Your task to perform on an android device: Do I have any events this weekend? Image 0: 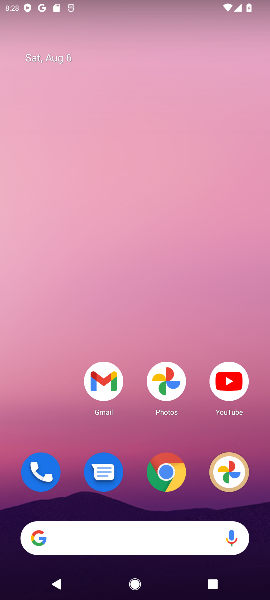
Step 0: click (229, 463)
Your task to perform on an android device: Do I have any events this weekend? Image 1: 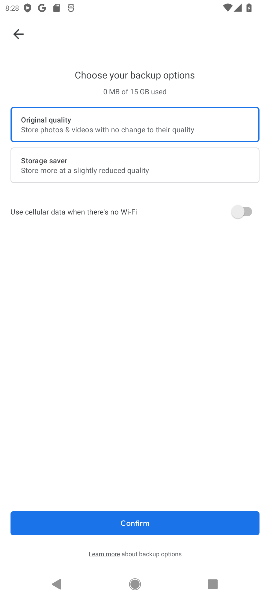
Step 1: press home button
Your task to perform on an android device: Do I have any events this weekend? Image 2: 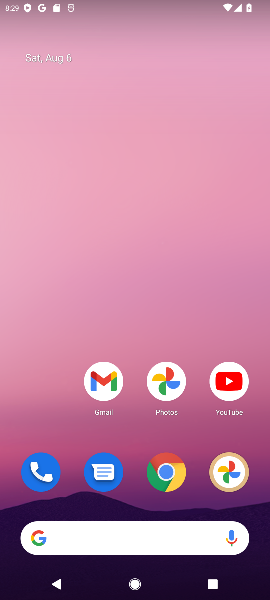
Step 2: drag from (250, 560) to (222, 154)
Your task to perform on an android device: Do I have any events this weekend? Image 3: 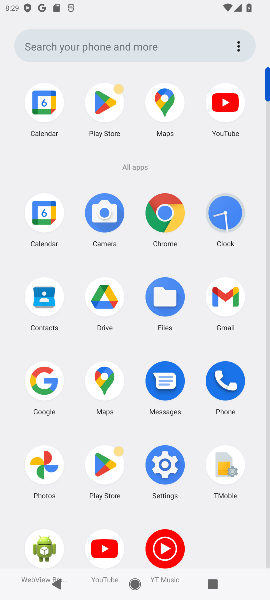
Step 3: click (46, 206)
Your task to perform on an android device: Do I have any events this weekend? Image 4: 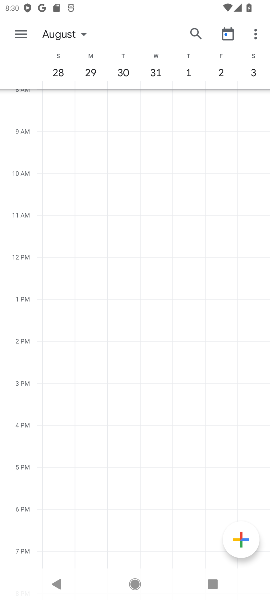
Step 4: click (75, 33)
Your task to perform on an android device: Do I have any events this weekend? Image 5: 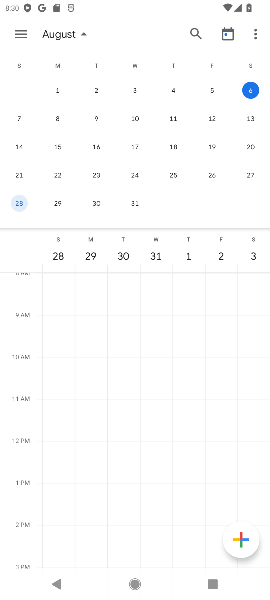
Step 5: click (17, 36)
Your task to perform on an android device: Do I have any events this weekend? Image 6: 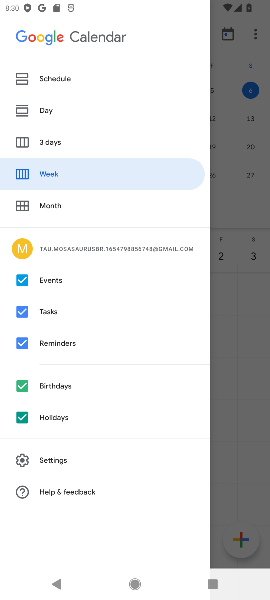
Step 6: click (47, 74)
Your task to perform on an android device: Do I have any events this weekend? Image 7: 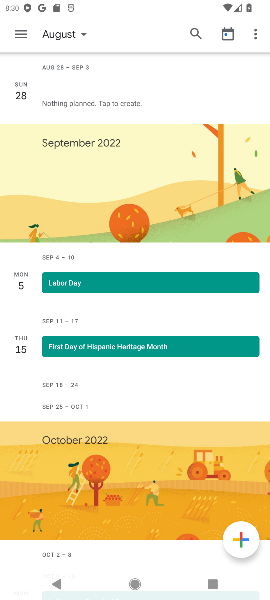
Step 7: task complete